Your task to perform on an android device: Open settings on Google Maps Image 0: 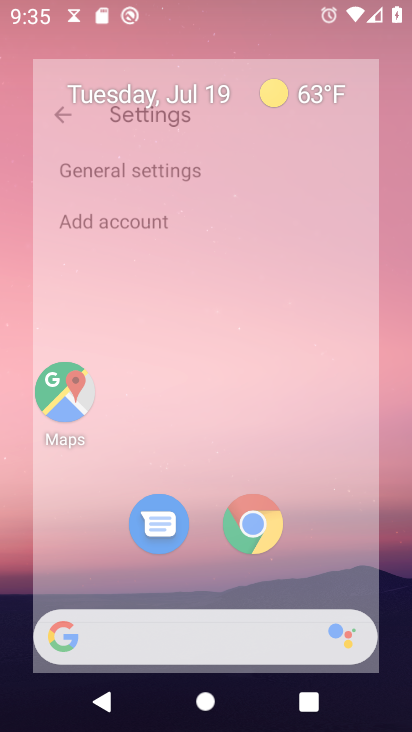
Step 0: press home button
Your task to perform on an android device: Open settings on Google Maps Image 1: 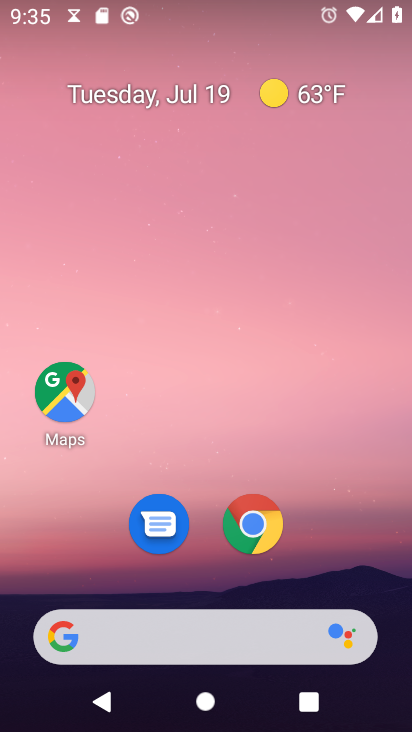
Step 1: click (68, 406)
Your task to perform on an android device: Open settings on Google Maps Image 2: 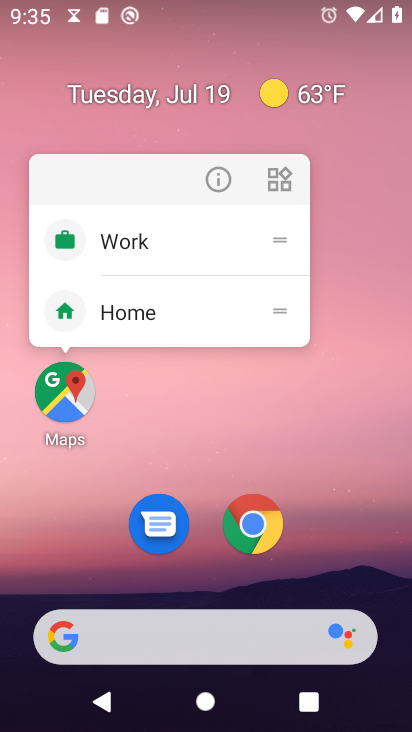
Step 2: click (61, 402)
Your task to perform on an android device: Open settings on Google Maps Image 3: 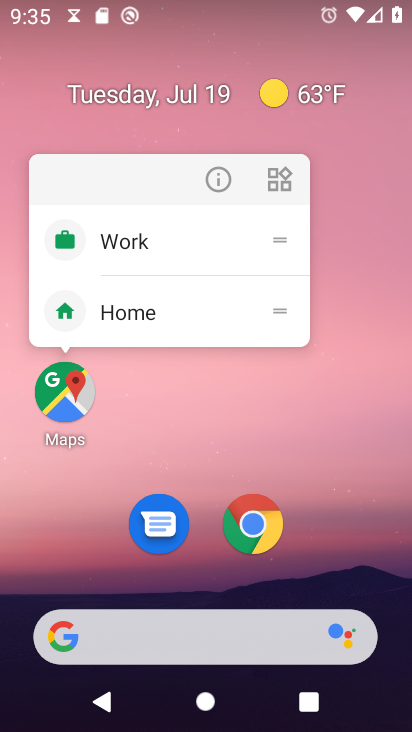
Step 3: click (61, 402)
Your task to perform on an android device: Open settings on Google Maps Image 4: 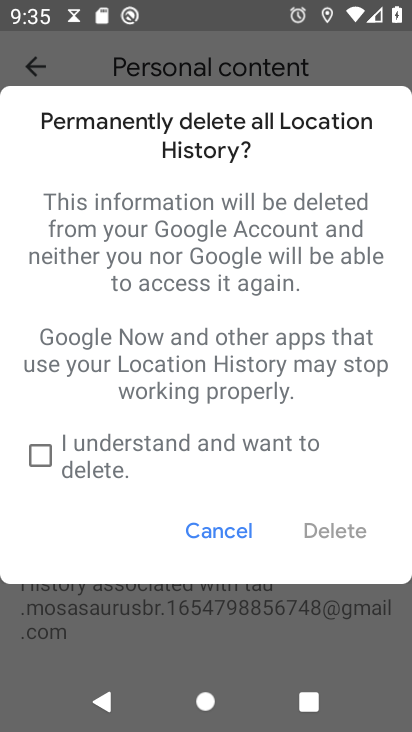
Step 4: click (196, 535)
Your task to perform on an android device: Open settings on Google Maps Image 5: 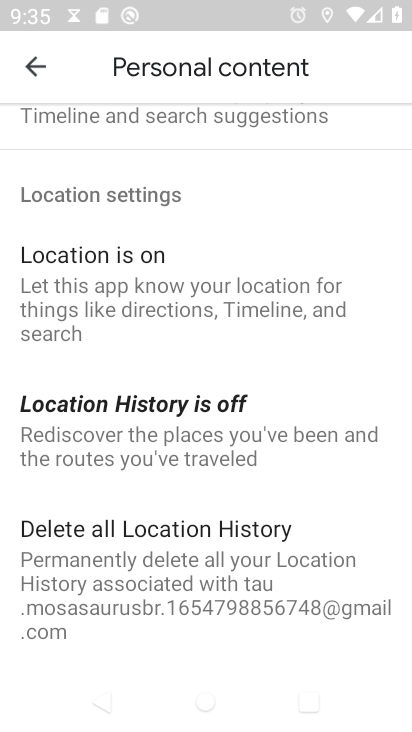
Step 5: click (36, 59)
Your task to perform on an android device: Open settings on Google Maps Image 6: 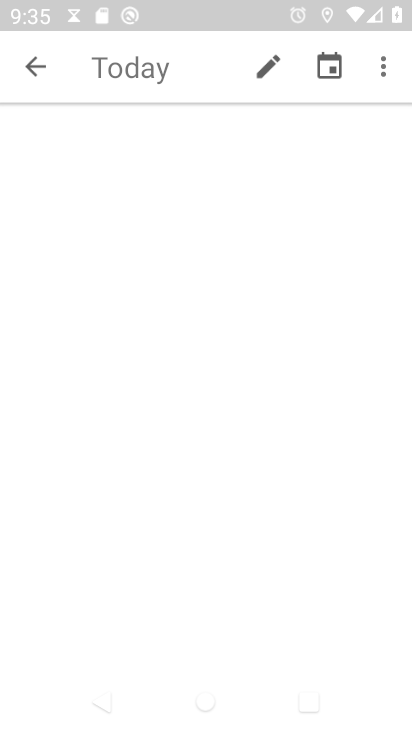
Step 6: click (36, 60)
Your task to perform on an android device: Open settings on Google Maps Image 7: 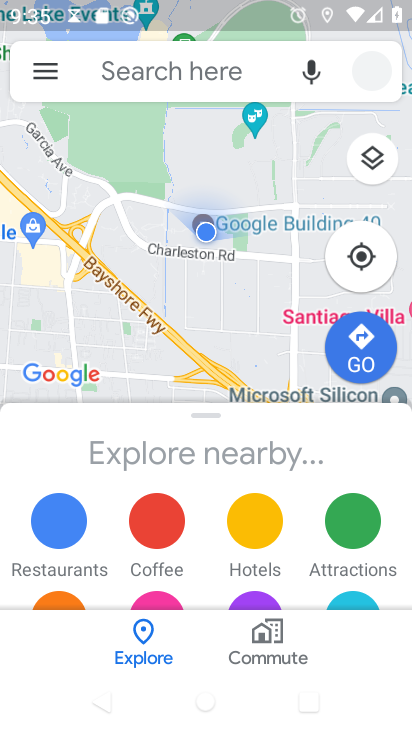
Step 7: click (46, 70)
Your task to perform on an android device: Open settings on Google Maps Image 8: 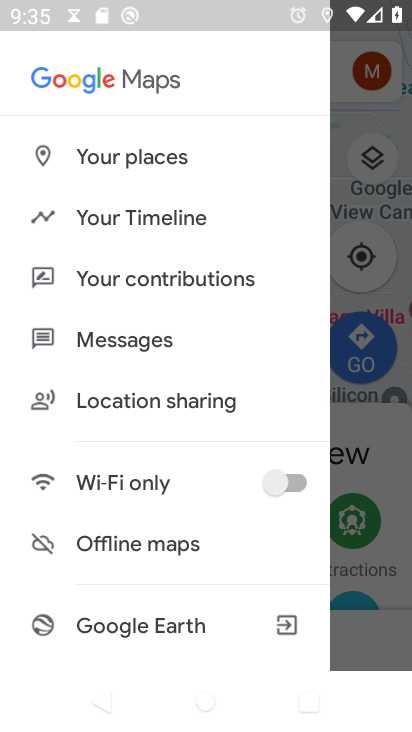
Step 8: drag from (166, 611) to (288, 150)
Your task to perform on an android device: Open settings on Google Maps Image 9: 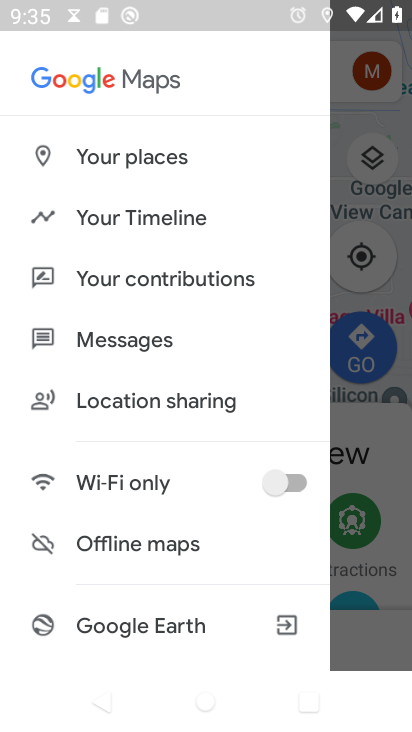
Step 9: drag from (121, 601) to (279, 33)
Your task to perform on an android device: Open settings on Google Maps Image 10: 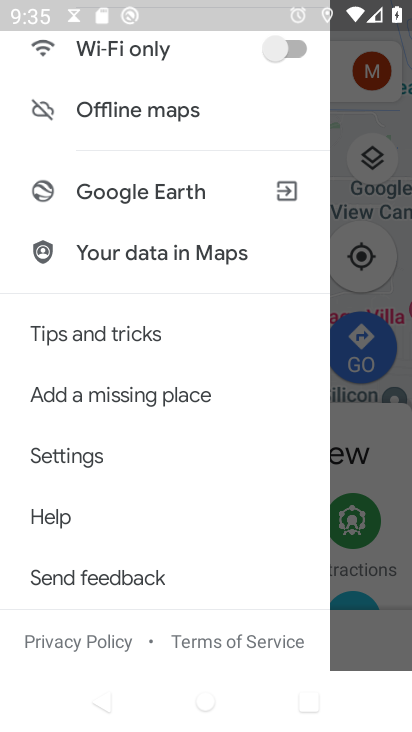
Step 10: click (67, 454)
Your task to perform on an android device: Open settings on Google Maps Image 11: 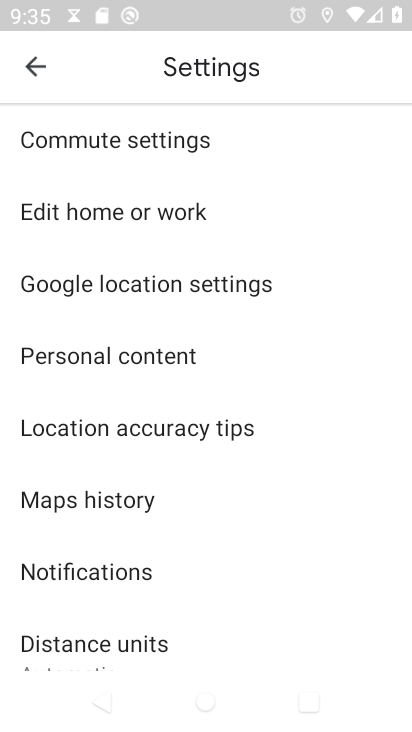
Step 11: task complete